Your task to perform on an android device: show emergency info Image 0: 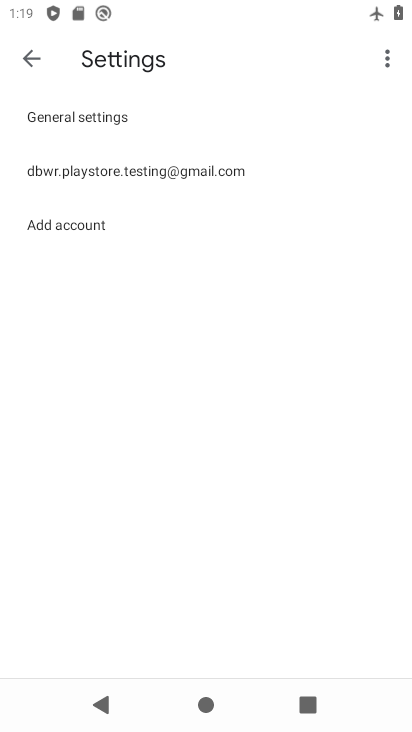
Step 0: press back button
Your task to perform on an android device: show emergency info Image 1: 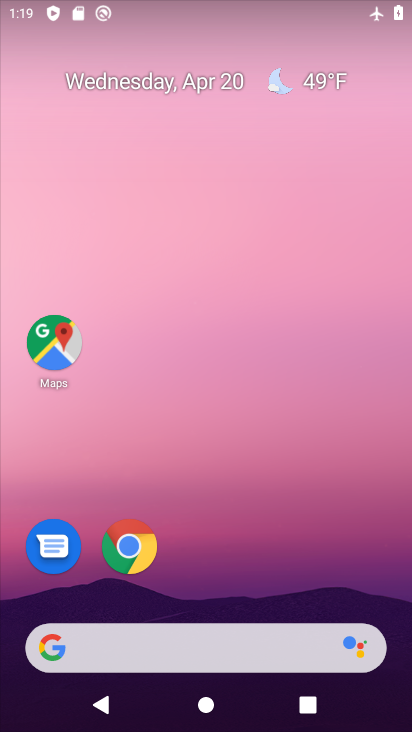
Step 1: press back button
Your task to perform on an android device: show emergency info Image 2: 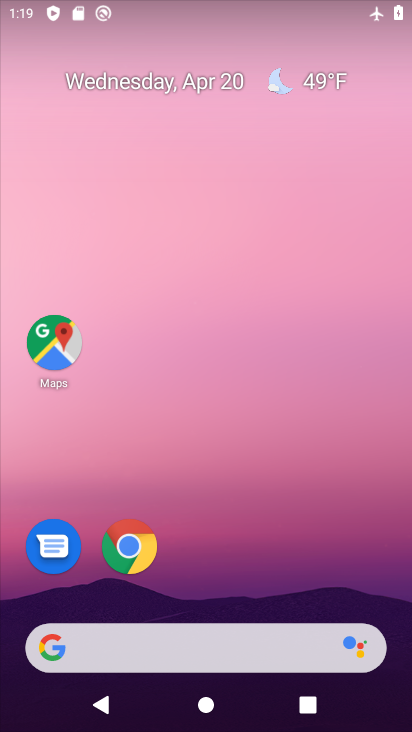
Step 2: drag from (251, 532) to (294, 72)
Your task to perform on an android device: show emergency info Image 3: 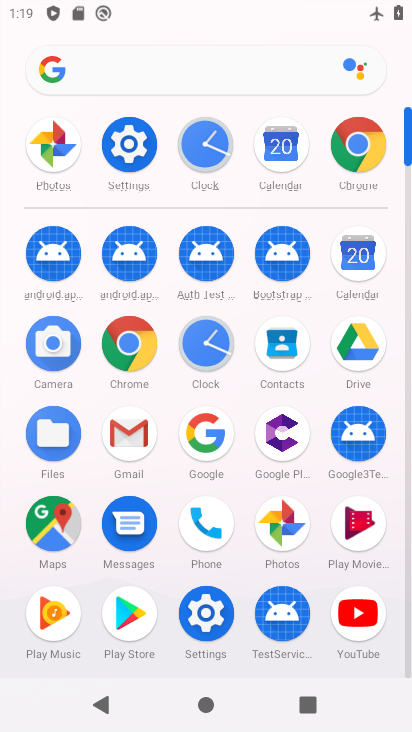
Step 3: click (123, 138)
Your task to perform on an android device: show emergency info Image 4: 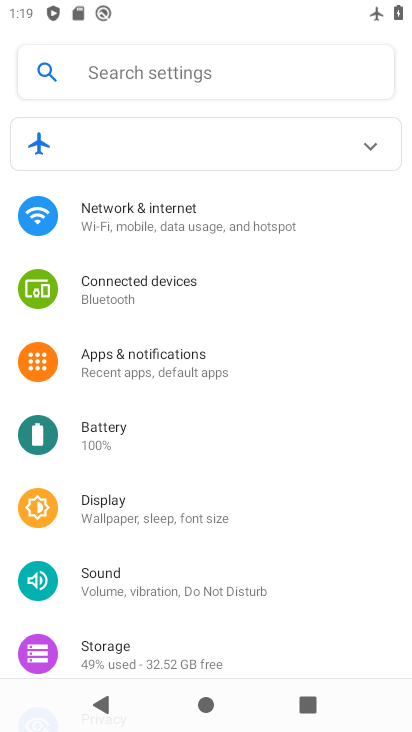
Step 4: drag from (173, 466) to (267, 60)
Your task to perform on an android device: show emergency info Image 5: 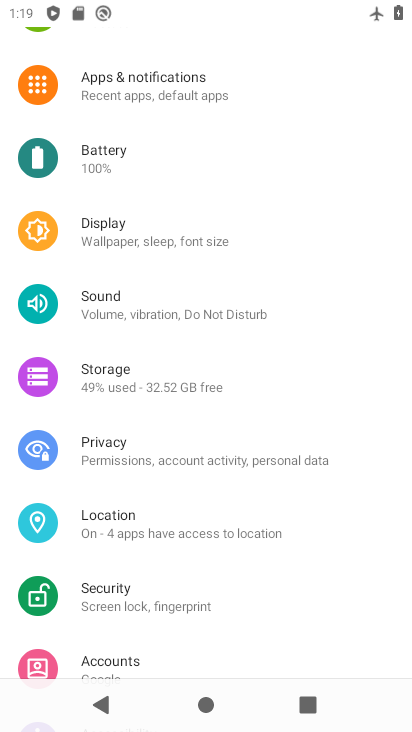
Step 5: drag from (187, 594) to (277, 35)
Your task to perform on an android device: show emergency info Image 6: 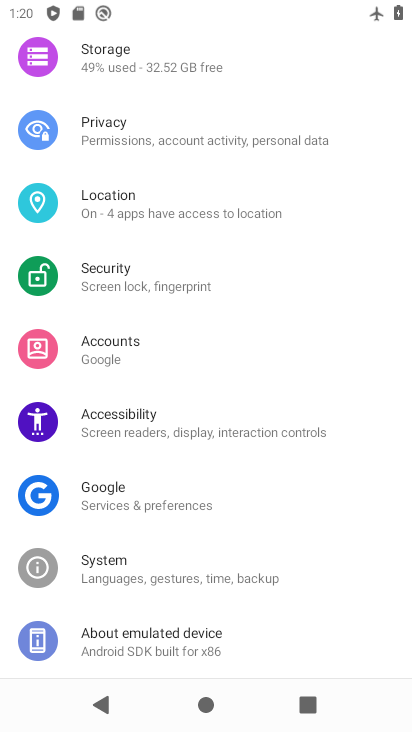
Step 6: drag from (188, 542) to (264, 101)
Your task to perform on an android device: show emergency info Image 7: 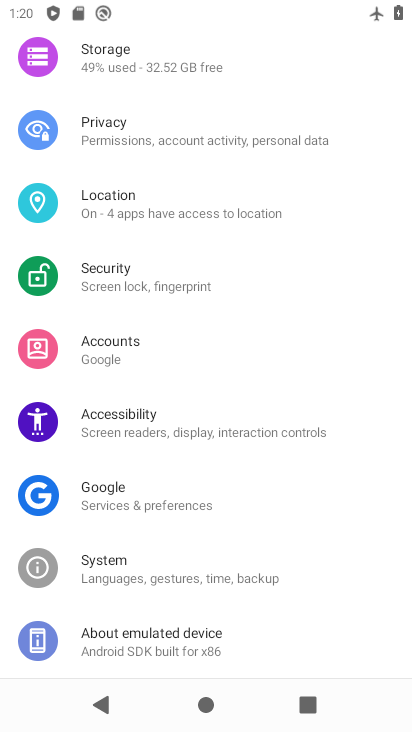
Step 7: drag from (251, 601) to (341, 34)
Your task to perform on an android device: show emergency info Image 8: 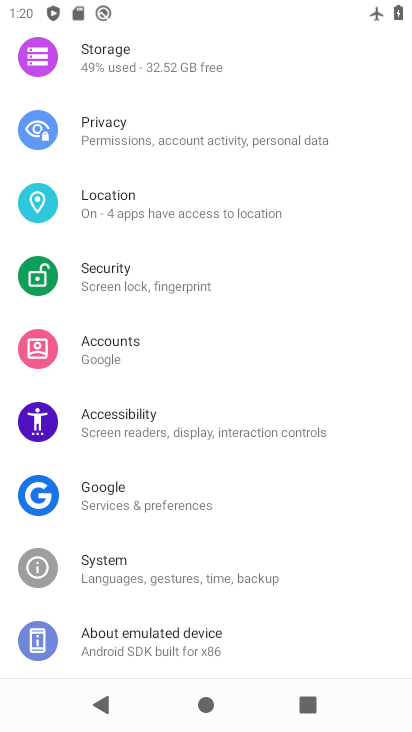
Step 8: click (136, 649)
Your task to perform on an android device: show emergency info Image 9: 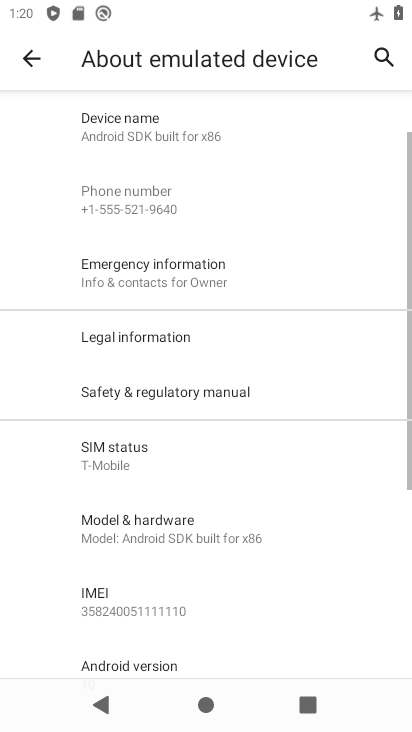
Step 9: click (172, 274)
Your task to perform on an android device: show emergency info Image 10: 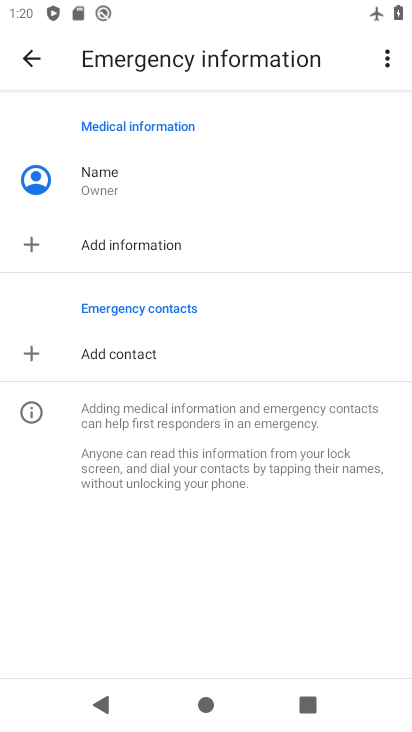
Step 10: task complete